Your task to perform on an android device: Open sound settings Image 0: 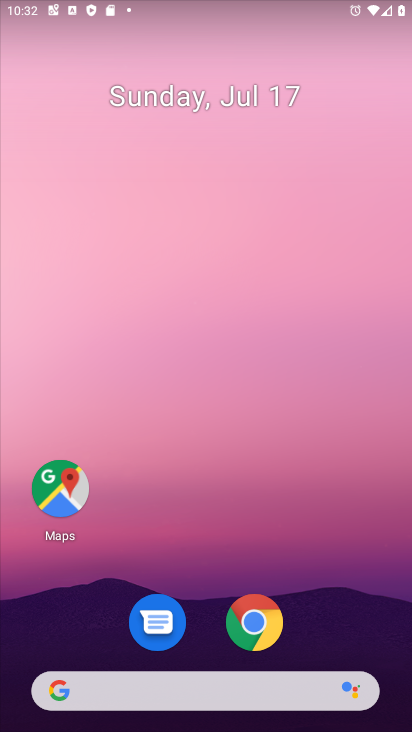
Step 0: drag from (224, 724) to (411, 359)
Your task to perform on an android device: Open sound settings Image 1: 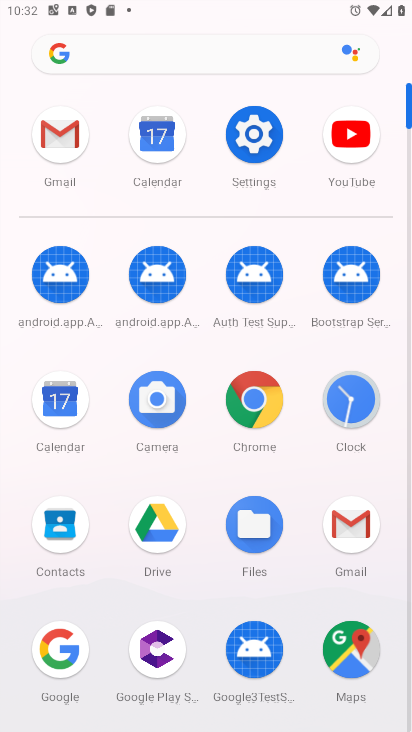
Step 1: click (255, 119)
Your task to perform on an android device: Open sound settings Image 2: 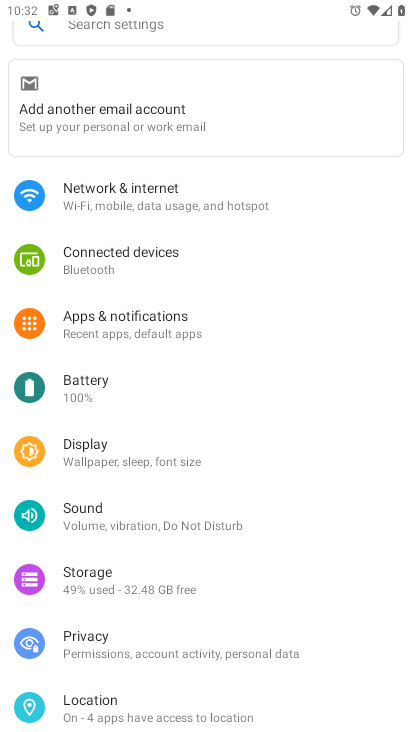
Step 2: click (105, 513)
Your task to perform on an android device: Open sound settings Image 3: 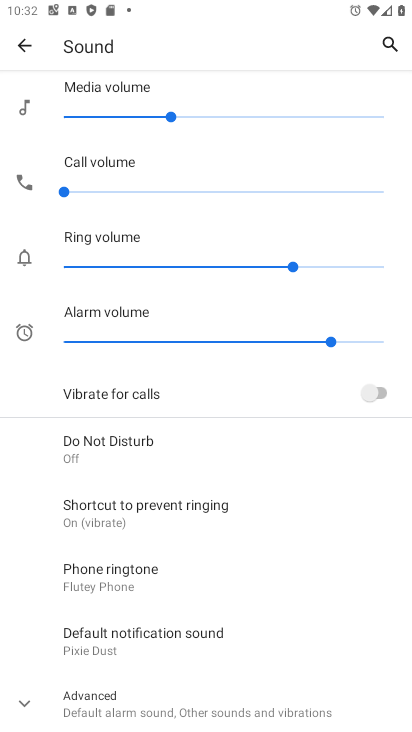
Step 3: task complete